Your task to perform on an android device: Open calendar and show me the fourth week of next month Image 0: 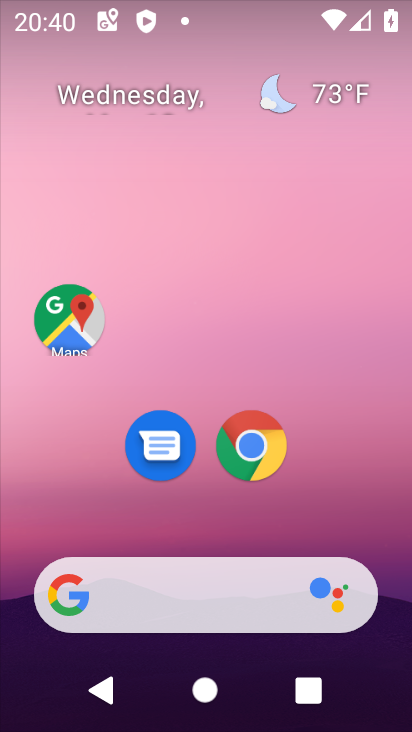
Step 0: drag from (306, 474) to (280, 78)
Your task to perform on an android device: Open calendar and show me the fourth week of next month Image 1: 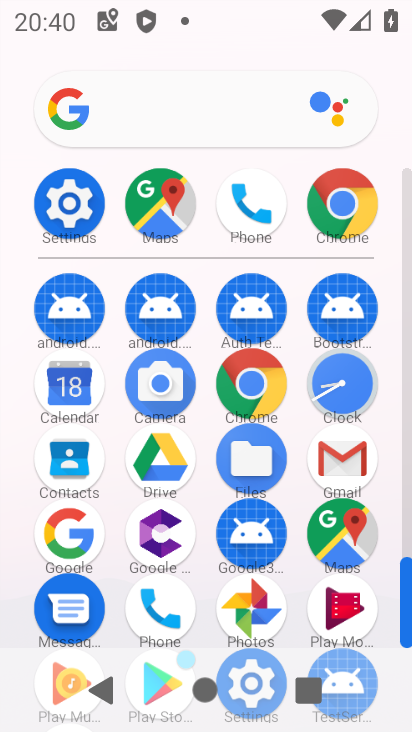
Step 1: click (66, 379)
Your task to perform on an android device: Open calendar and show me the fourth week of next month Image 2: 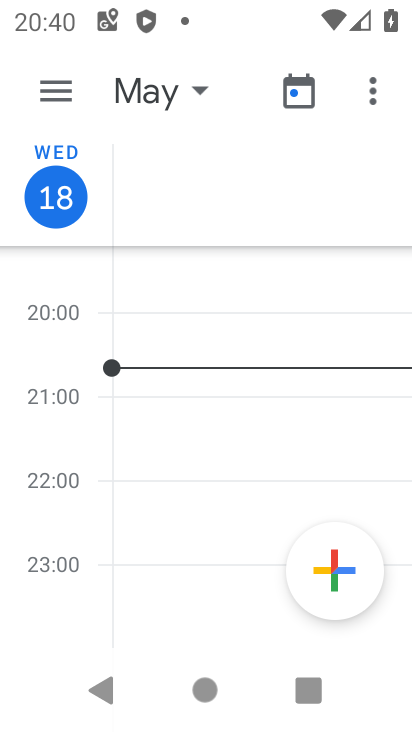
Step 2: click (38, 86)
Your task to perform on an android device: Open calendar and show me the fourth week of next month Image 3: 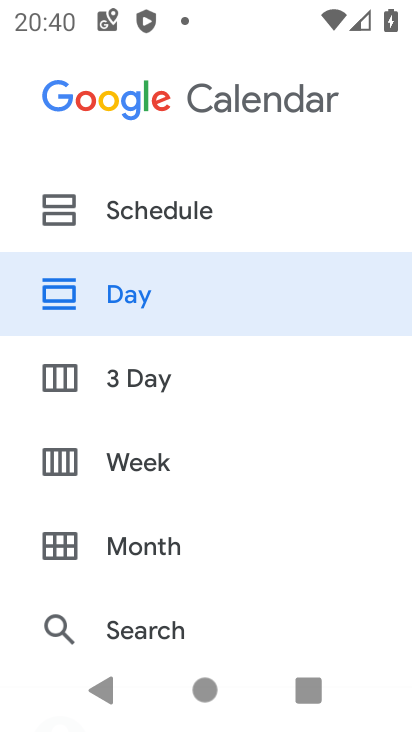
Step 3: click (144, 555)
Your task to perform on an android device: Open calendar and show me the fourth week of next month Image 4: 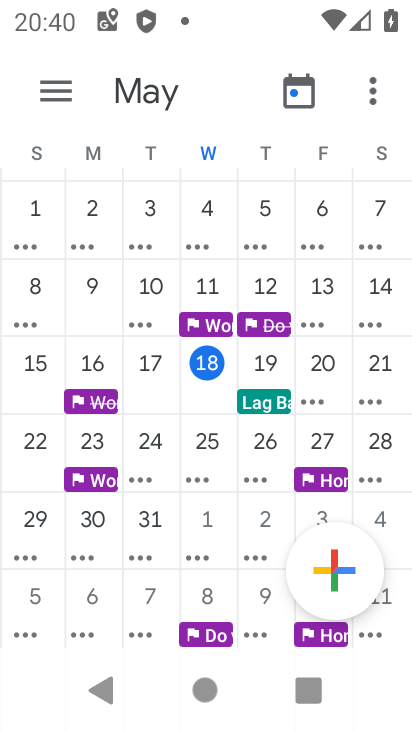
Step 4: task complete